Your task to perform on an android device: Open Wikipedia Image 0: 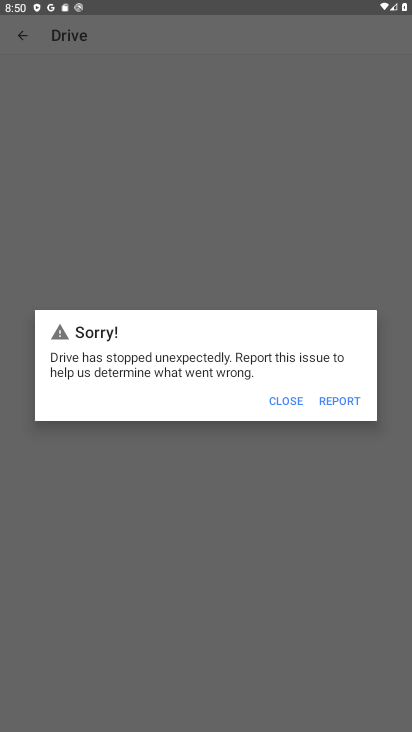
Step 0: press home button
Your task to perform on an android device: Open Wikipedia Image 1: 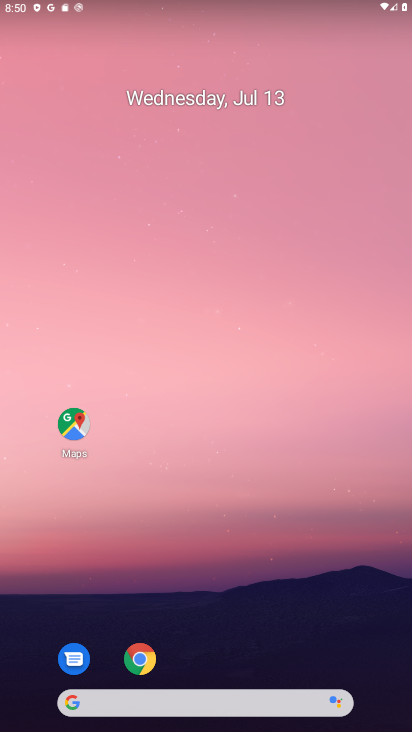
Step 1: drag from (274, 644) to (253, 214)
Your task to perform on an android device: Open Wikipedia Image 2: 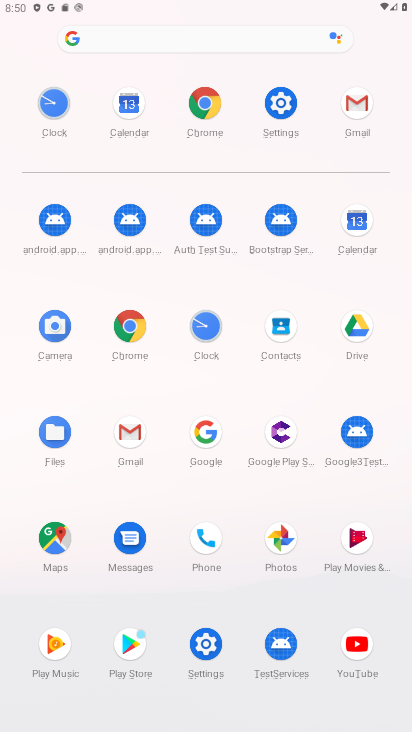
Step 2: click (206, 113)
Your task to perform on an android device: Open Wikipedia Image 3: 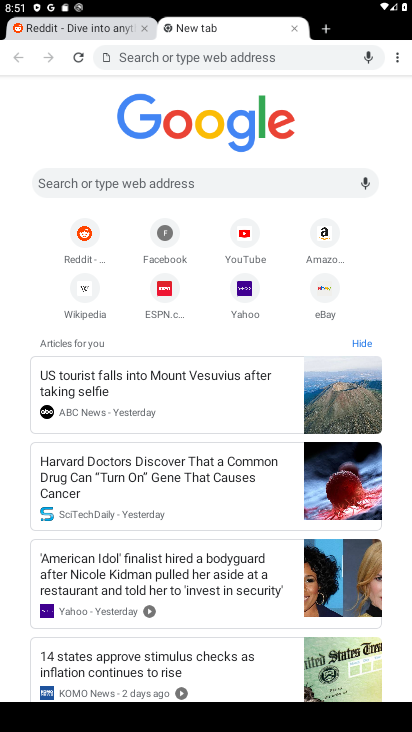
Step 3: click (96, 292)
Your task to perform on an android device: Open Wikipedia Image 4: 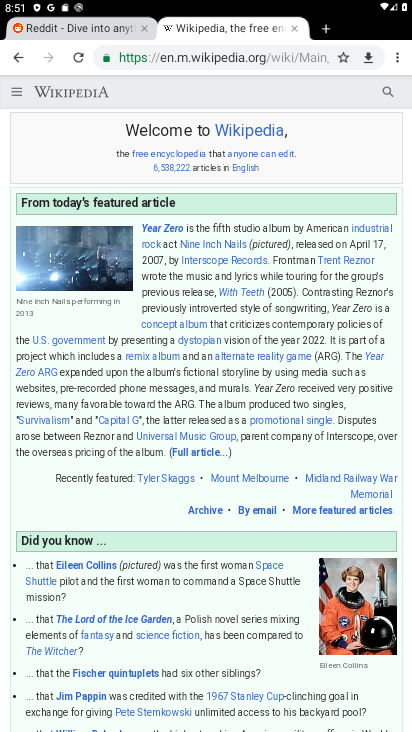
Step 4: task complete